Your task to perform on an android device: find photos in the google photos app Image 0: 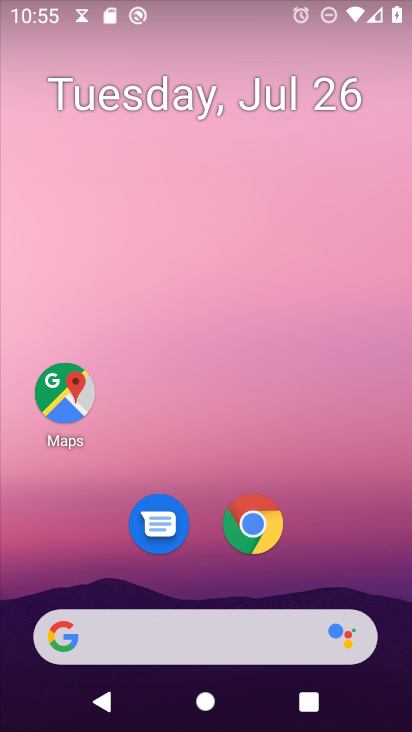
Step 0: drag from (179, 645) to (244, 78)
Your task to perform on an android device: find photos in the google photos app Image 1: 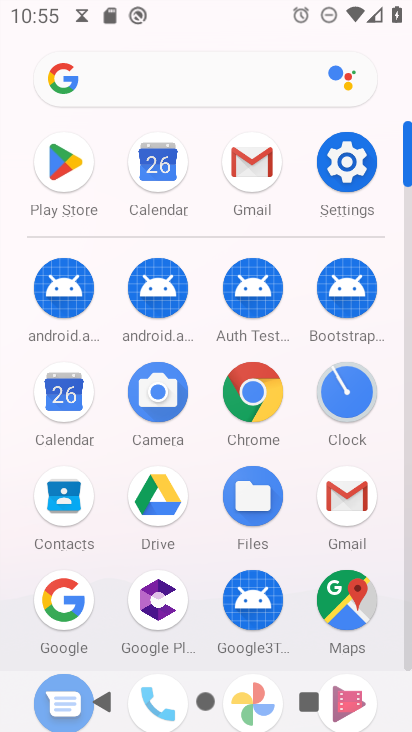
Step 1: drag from (211, 609) to (300, 142)
Your task to perform on an android device: find photos in the google photos app Image 2: 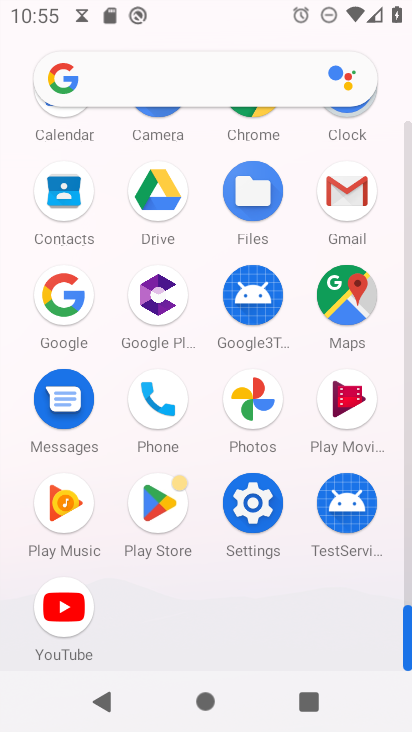
Step 2: click (248, 409)
Your task to perform on an android device: find photos in the google photos app Image 3: 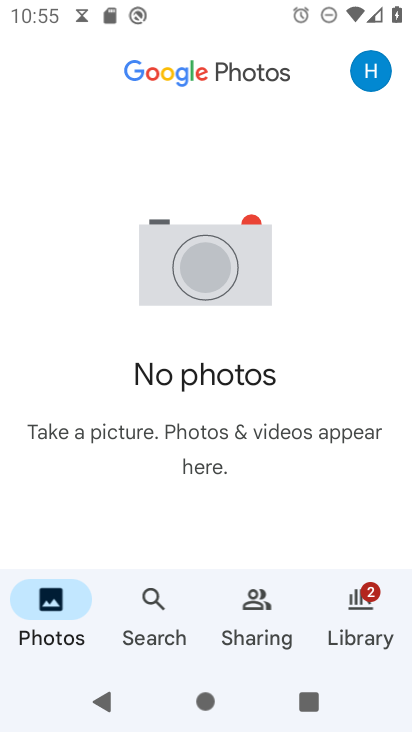
Step 3: click (47, 604)
Your task to perform on an android device: find photos in the google photos app Image 4: 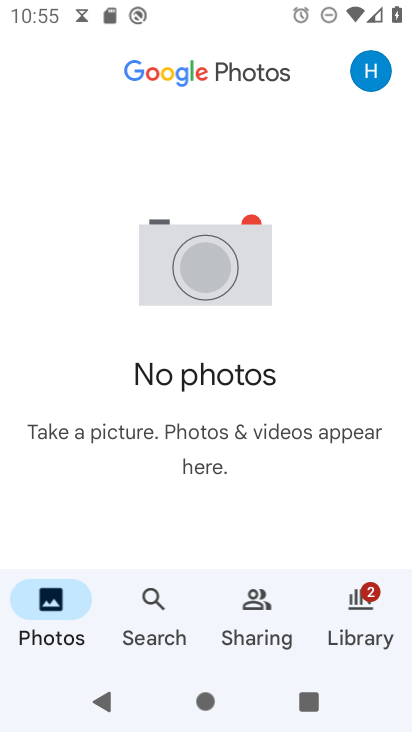
Step 4: task complete